Your task to perform on an android device: Turn on the flashlight Image 0: 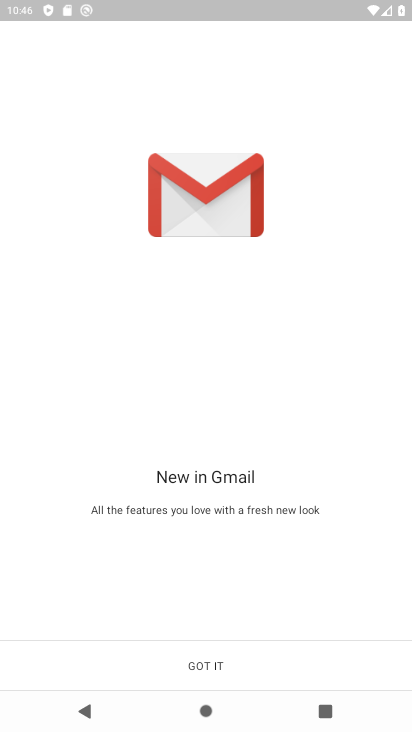
Step 0: press home button
Your task to perform on an android device: Turn on the flashlight Image 1: 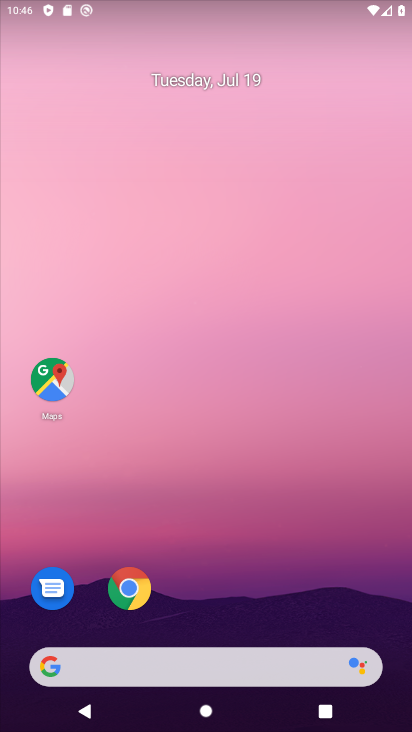
Step 1: drag from (233, 518) to (181, 2)
Your task to perform on an android device: Turn on the flashlight Image 2: 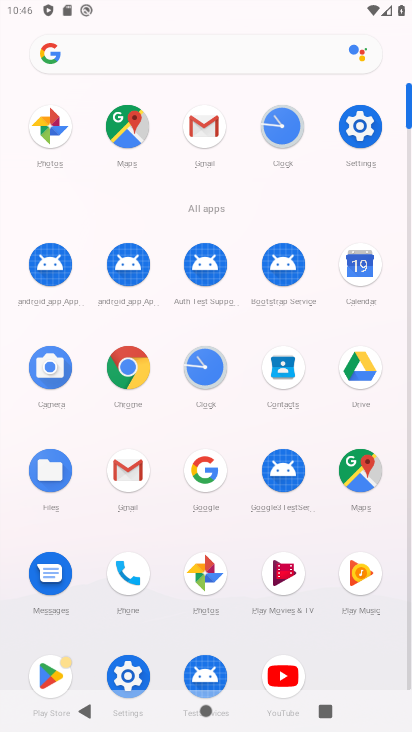
Step 2: click (350, 135)
Your task to perform on an android device: Turn on the flashlight Image 3: 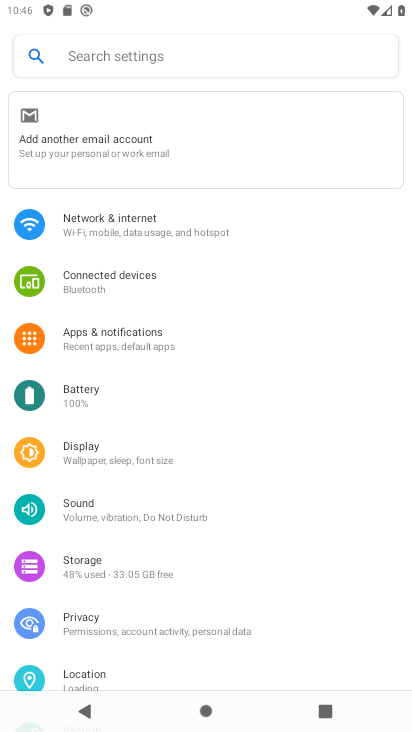
Step 3: task complete